Your task to perform on an android device: Open accessibility settings Image 0: 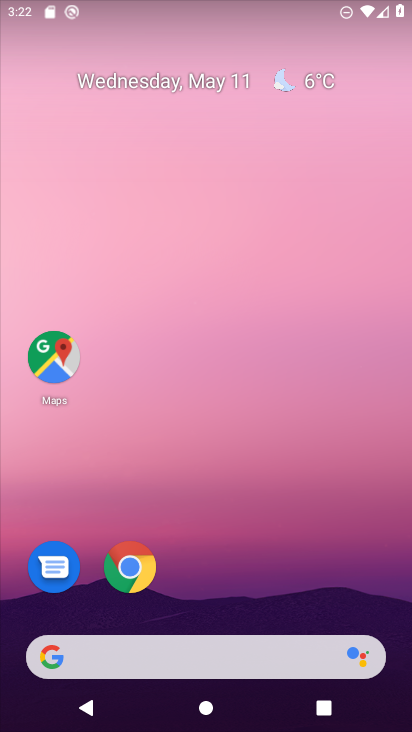
Step 0: drag from (272, 522) to (180, 7)
Your task to perform on an android device: Open accessibility settings Image 1: 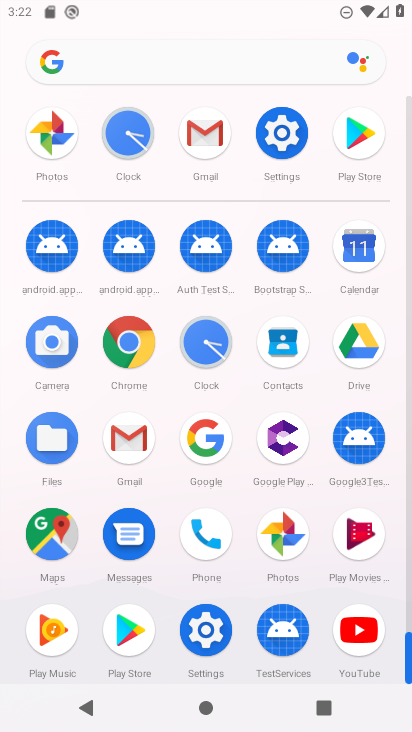
Step 1: click (287, 128)
Your task to perform on an android device: Open accessibility settings Image 2: 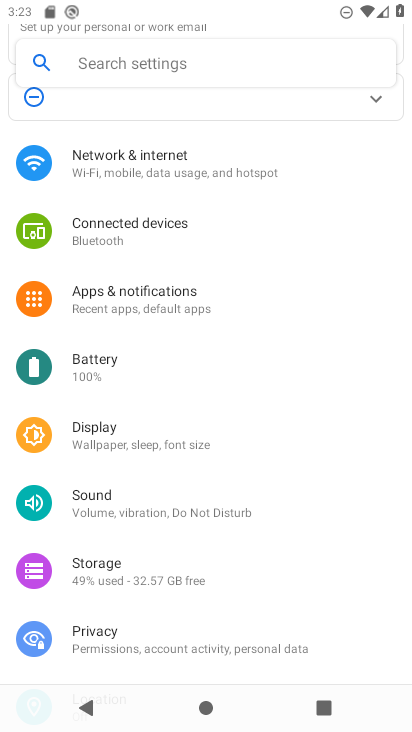
Step 2: drag from (247, 577) to (179, 140)
Your task to perform on an android device: Open accessibility settings Image 3: 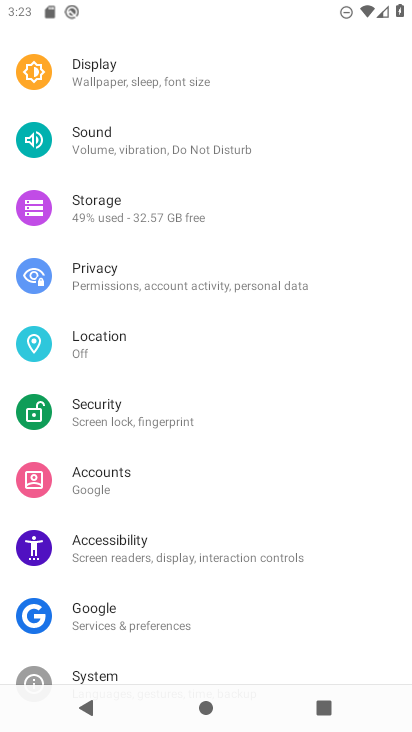
Step 3: click (114, 545)
Your task to perform on an android device: Open accessibility settings Image 4: 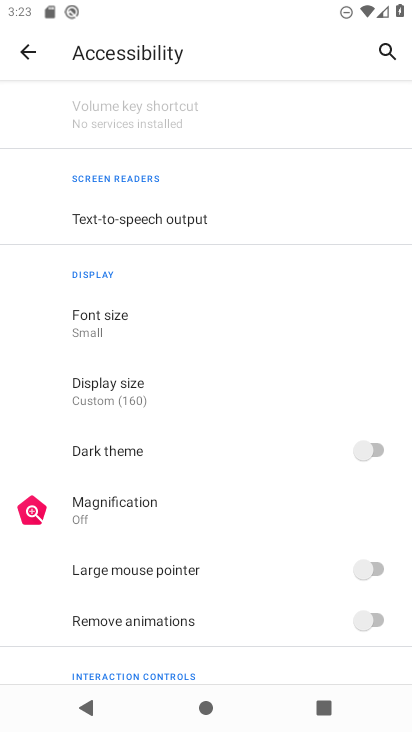
Step 4: task complete